Your task to perform on an android device: open chrome privacy settings Image 0: 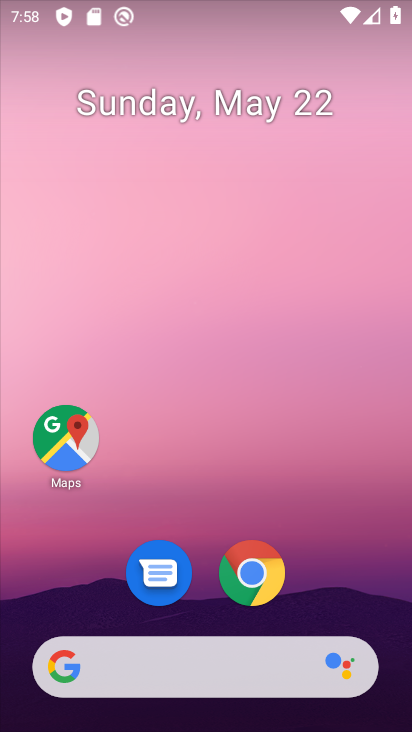
Step 0: drag from (193, 622) to (202, 3)
Your task to perform on an android device: open chrome privacy settings Image 1: 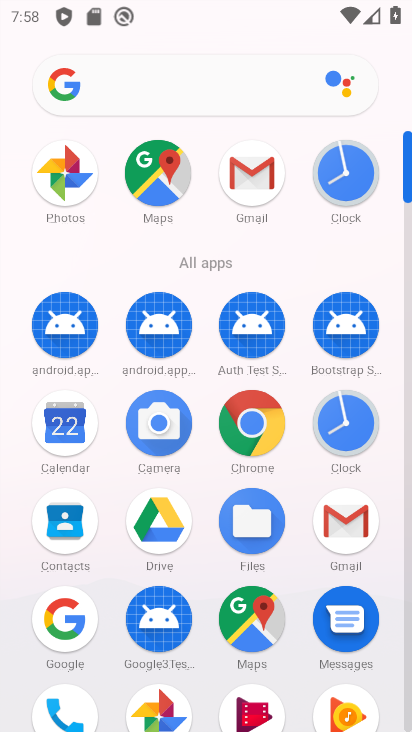
Step 1: drag from (200, 707) to (167, 263)
Your task to perform on an android device: open chrome privacy settings Image 2: 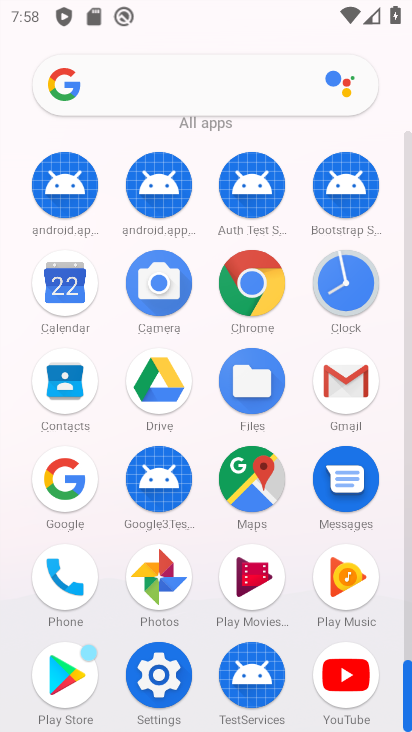
Step 2: click (157, 653)
Your task to perform on an android device: open chrome privacy settings Image 3: 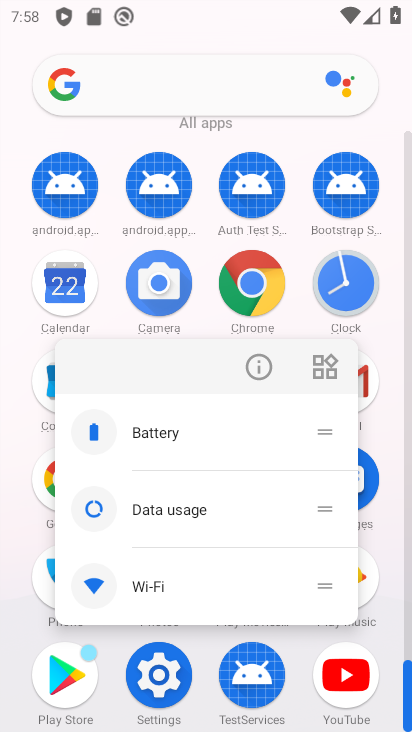
Step 3: click (257, 372)
Your task to perform on an android device: open chrome privacy settings Image 4: 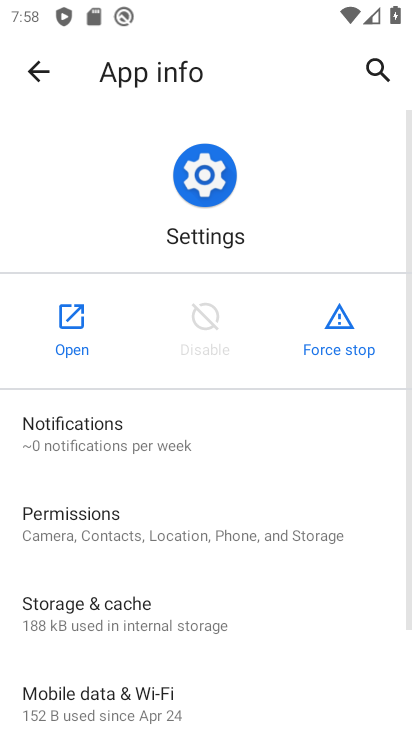
Step 4: click (86, 337)
Your task to perform on an android device: open chrome privacy settings Image 5: 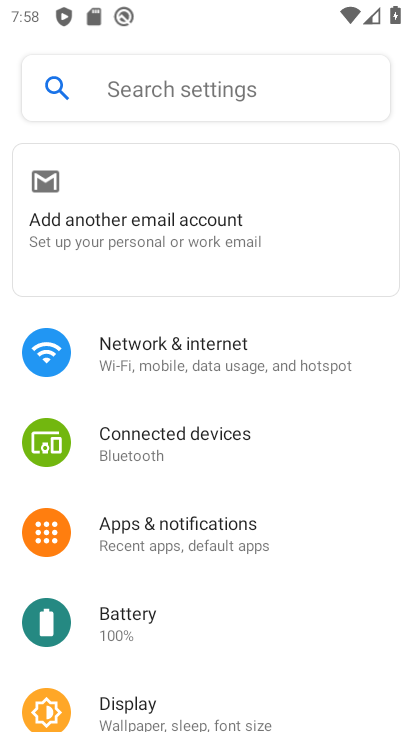
Step 5: drag from (222, 656) to (288, 149)
Your task to perform on an android device: open chrome privacy settings Image 6: 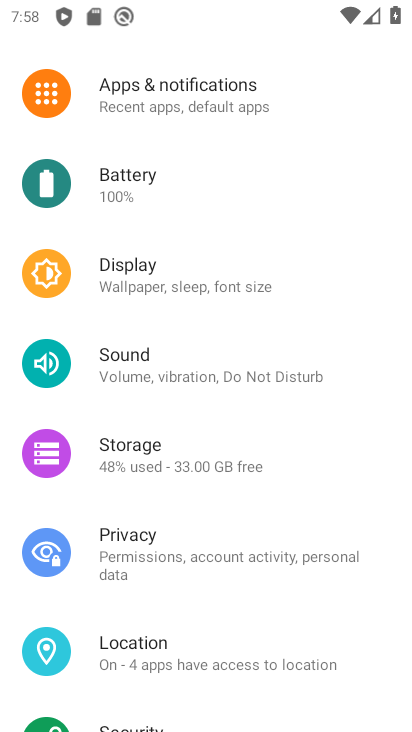
Step 6: press home button
Your task to perform on an android device: open chrome privacy settings Image 7: 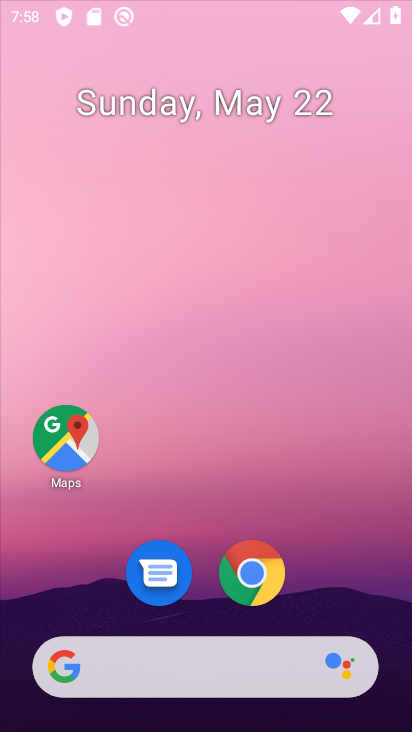
Step 7: drag from (217, 592) to (280, 12)
Your task to perform on an android device: open chrome privacy settings Image 8: 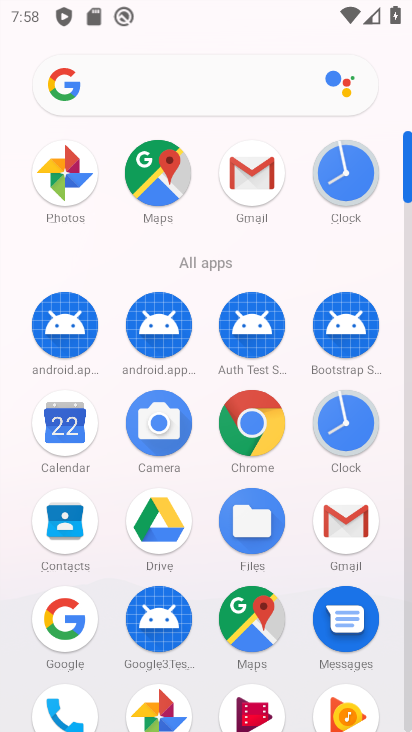
Step 8: click (253, 443)
Your task to perform on an android device: open chrome privacy settings Image 9: 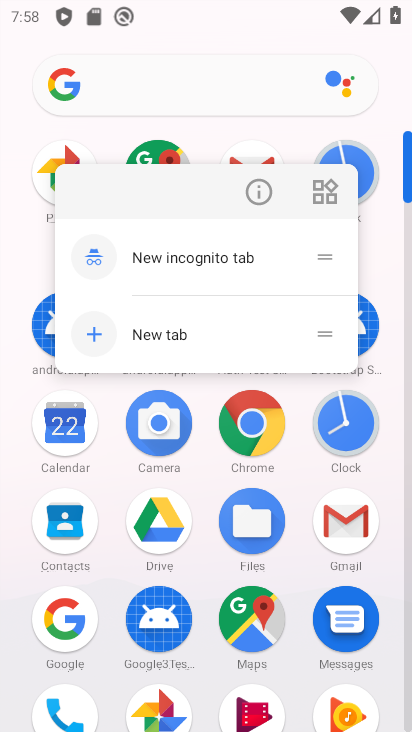
Step 9: click (273, 188)
Your task to perform on an android device: open chrome privacy settings Image 10: 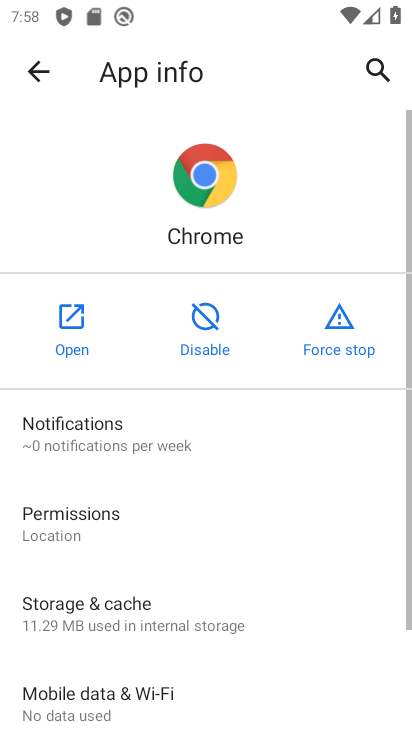
Step 10: click (84, 318)
Your task to perform on an android device: open chrome privacy settings Image 11: 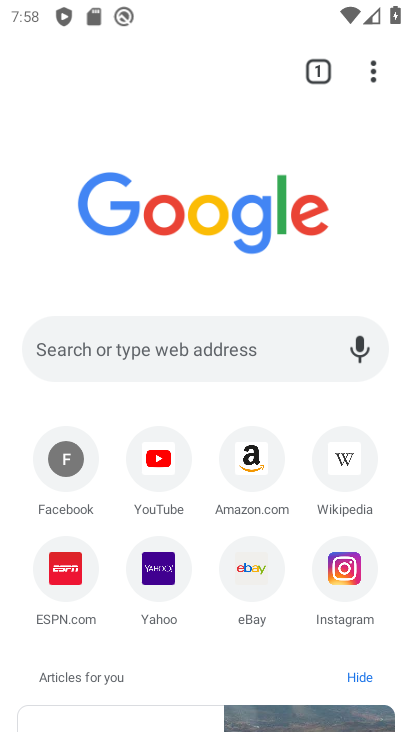
Step 11: click (370, 70)
Your task to perform on an android device: open chrome privacy settings Image 12: 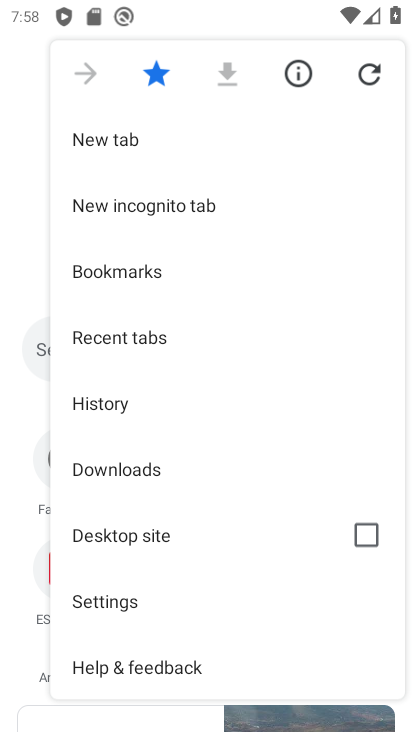
Step 12: drag from (251, 597) to (313, 123)
Your task to perform on an android device: open chrome privacy settings Image 13: 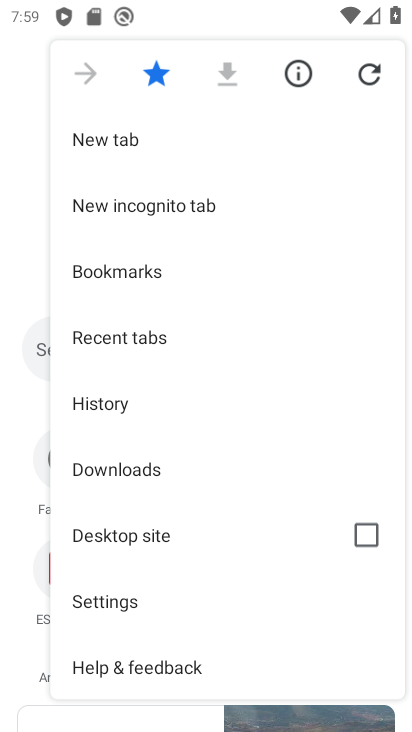
Step 13: click (131, 596)
Your task to perform on an android device: open chrome privacy settings Image 14: 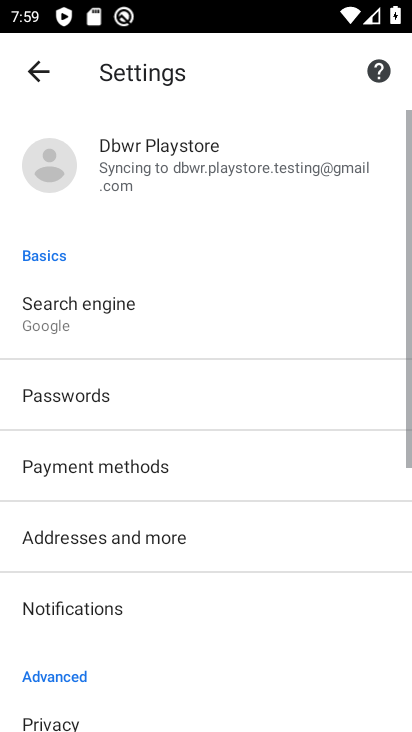
Step 14: drag from (179, 497) to (308, 24)
Your task to perform on an android device: open chrome privacy settings Image 15: 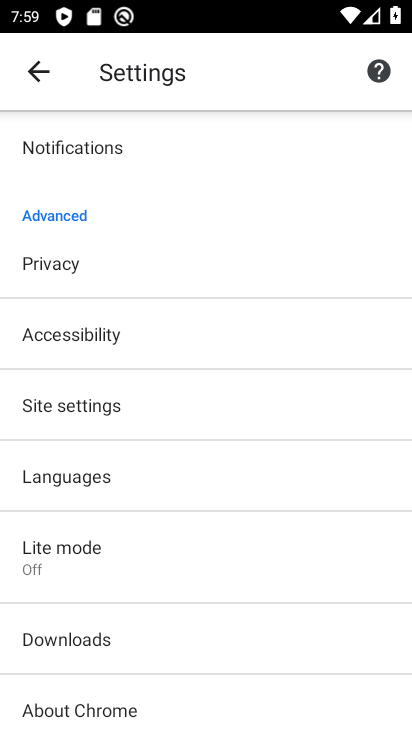
Step 15: drag from (200, 640) to (235, 237)
Your task to perform on an android device: open chrome privacy settings Image 16: 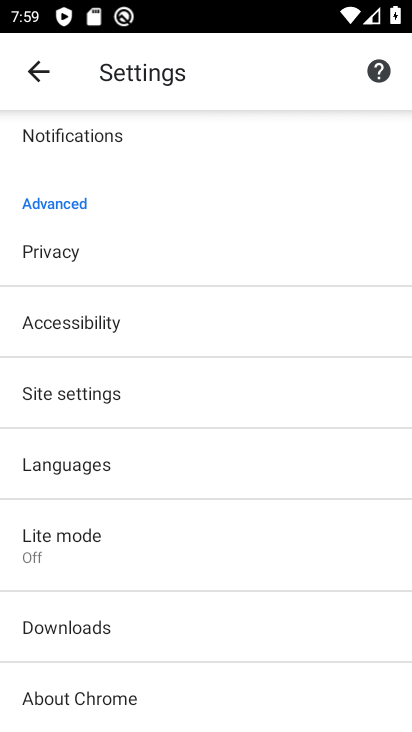
Step 16: click (127, 255)
Your task to perform on an android device: open chrome privacy settings Image 17: 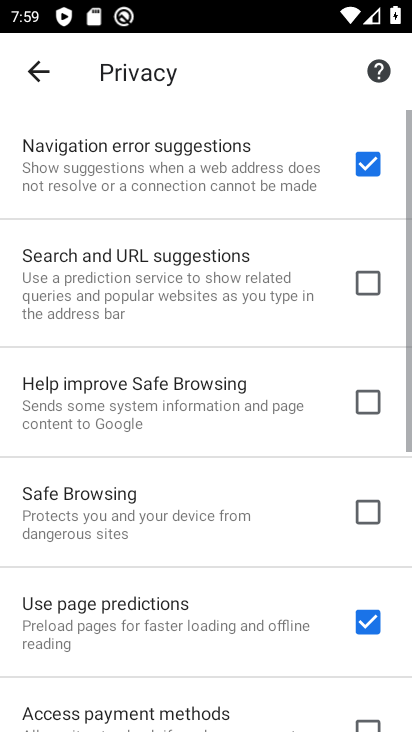
Step 17: task complete